Your task to perform on an android device: View the shopping cart on amazon.com. Add logitech g910 to the cart on amazon.com Image 0: 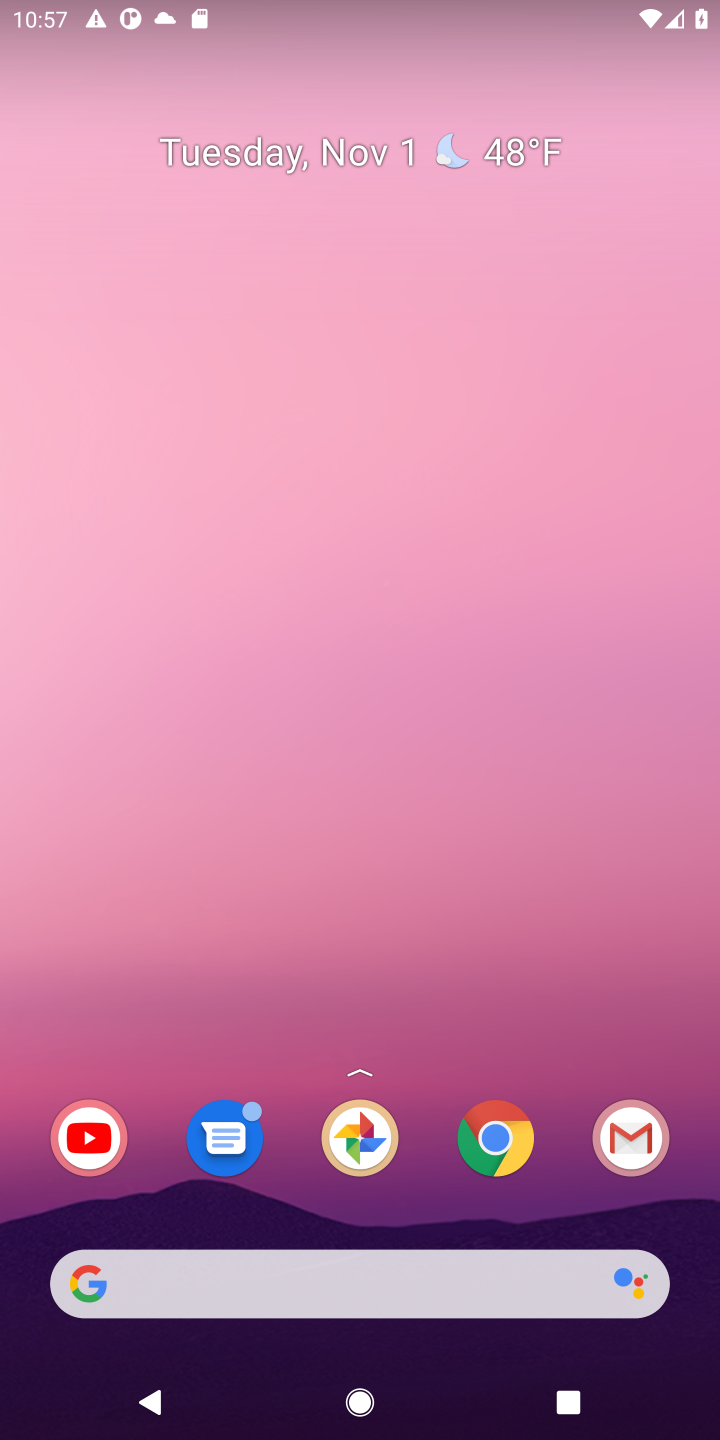
Step 0: press home button
Your task to perform on an android device: View the shopping cart on amazon.com. Add logitech g910 to the cart on amazon.com Image 1: 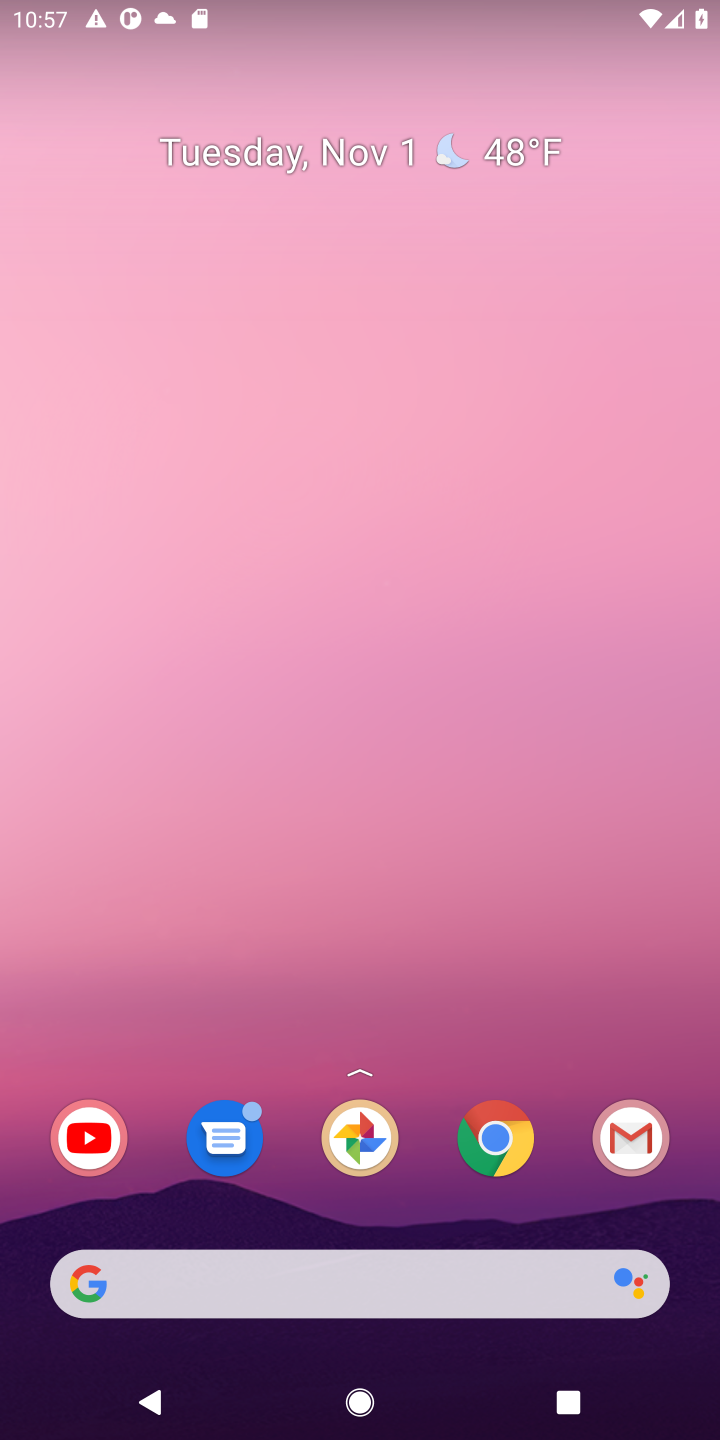
Step 1: drag from (428, 1097) to (454, 14)
Your task to perform on an android device: View the shopping cart on amazon.com. Add logitech g910 to the cart on amazon.com Image 2: 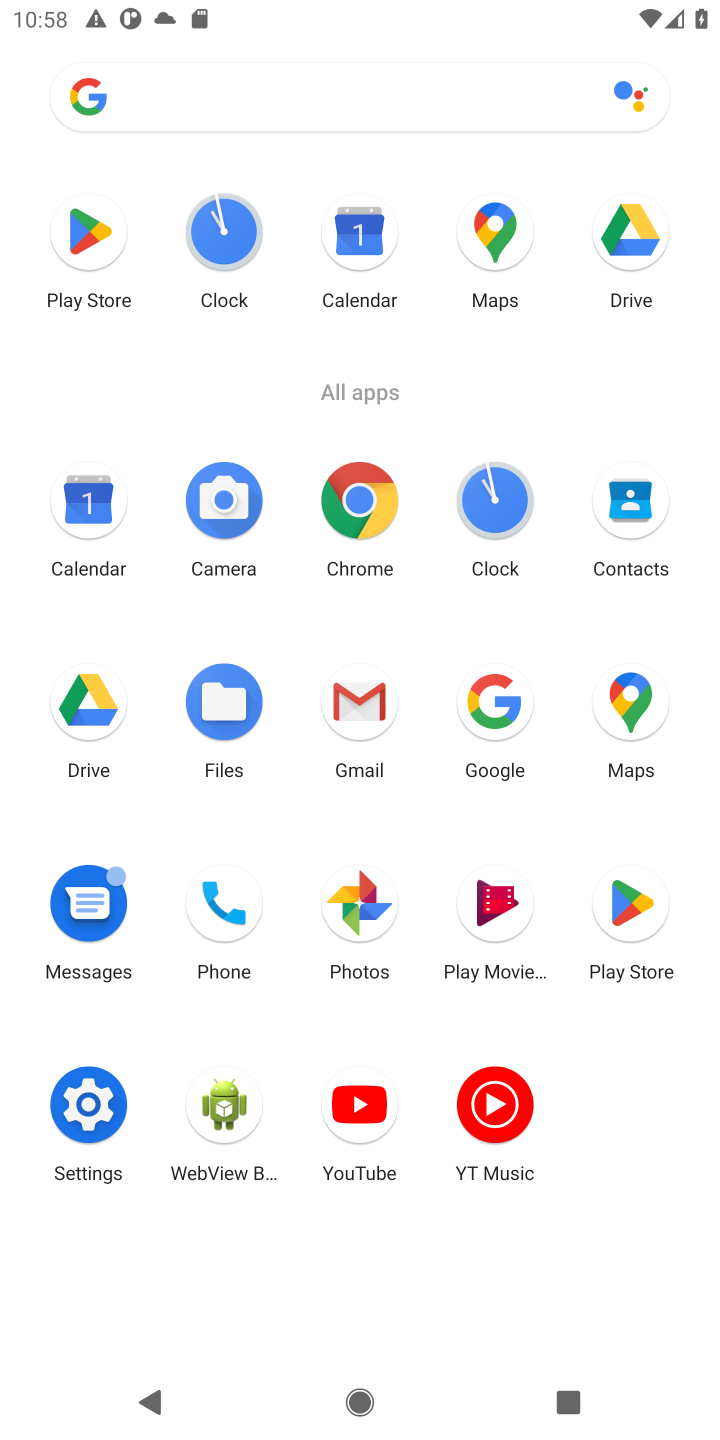
Step 2: click (361, 497)
Your task to perform on an android device: View the shopping cart on amazon.com. Add logitech g910 to the cart on amazon.com Image 3: 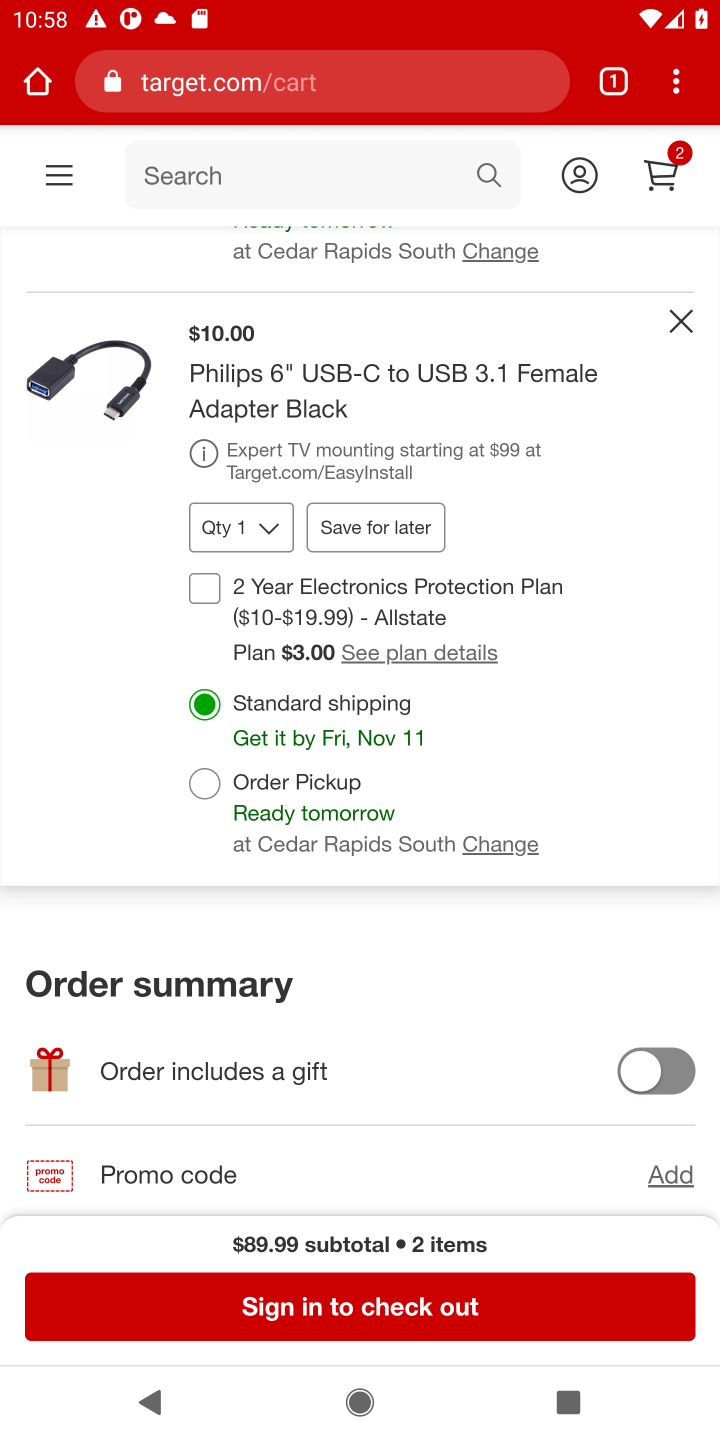
Step 3: click (209, 70)
Your task to perform on an android device: View the shopping cart on amazon.com. Add logitech g910 to the cart on amazon.com Image 4: 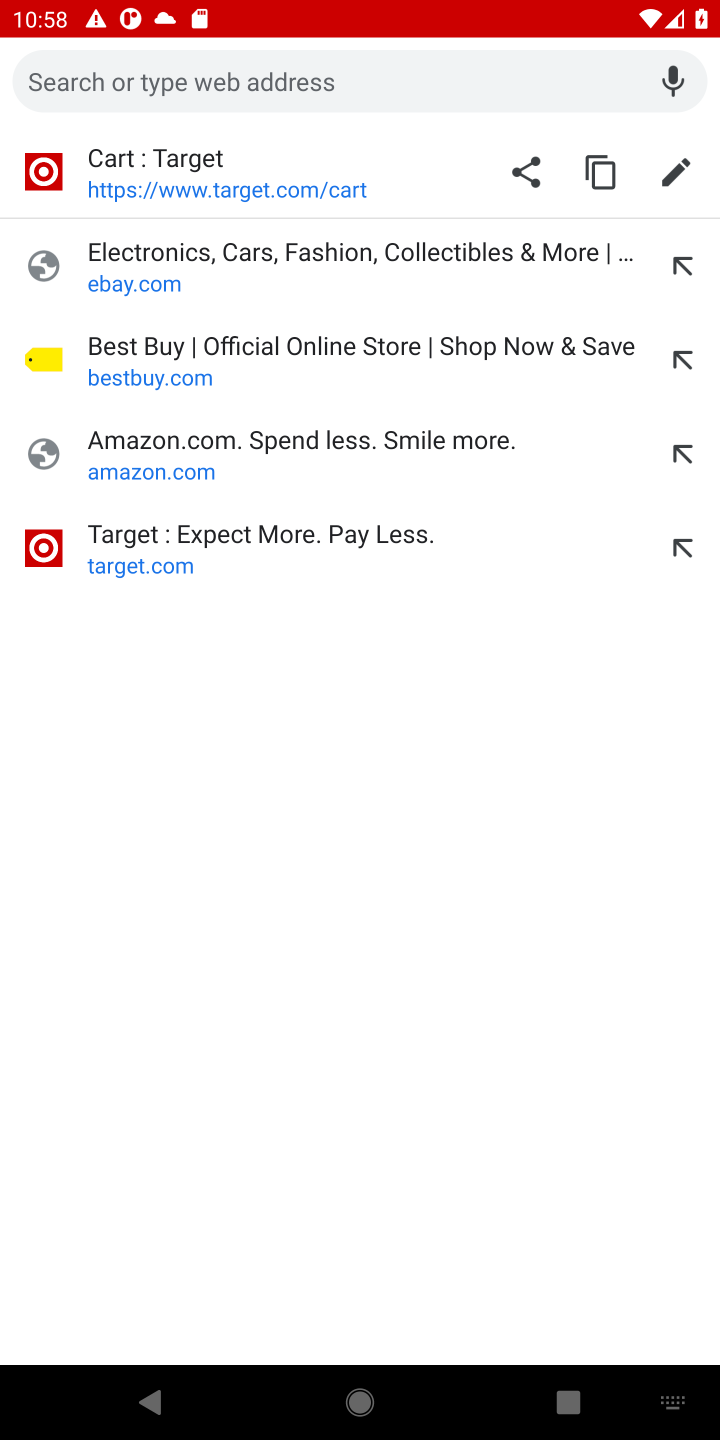
Step 4: type "amazon"
Your task to perform on an android device: View the shopping cart on amazon.com. Add logitech g910 to the cart on amazon.com Image 5: 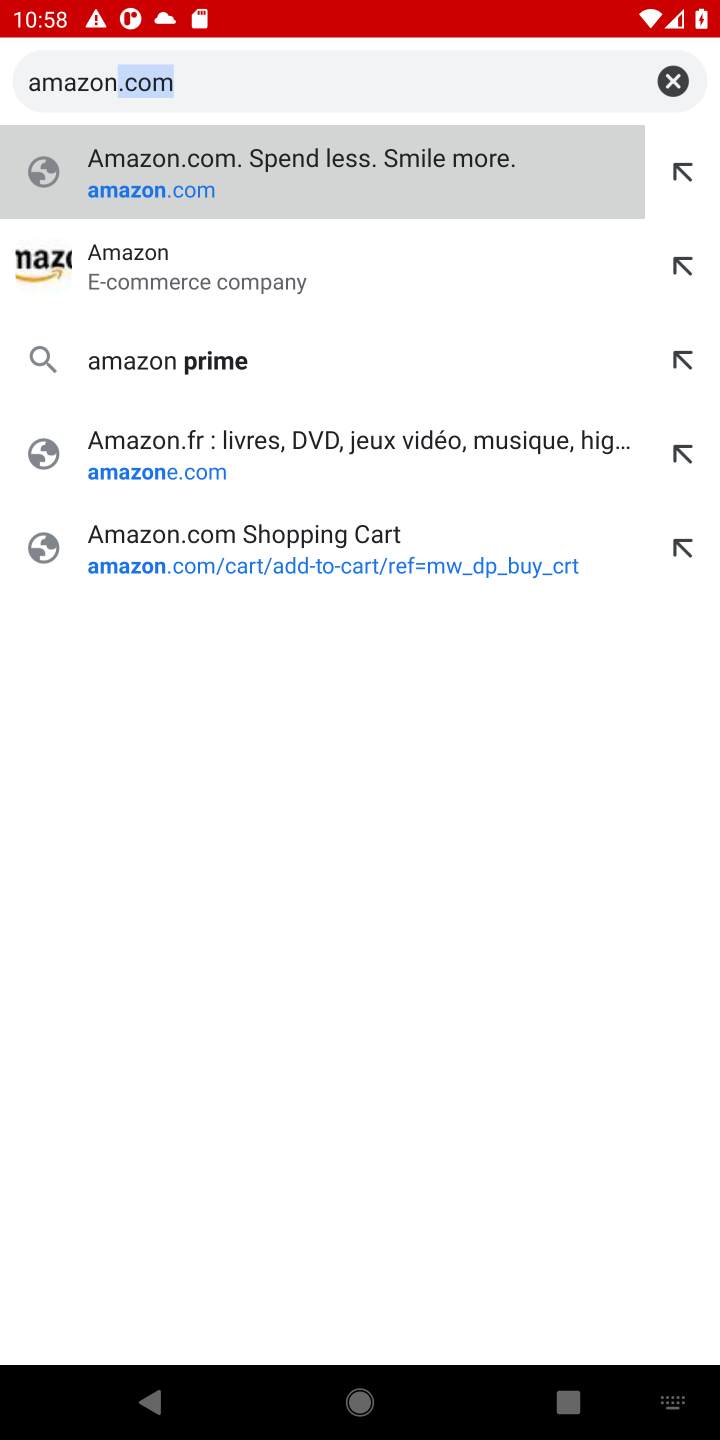
Step 5: type ""
Your task to perform on an android device: View the shopping cart on amazon.com. Add logitech g910 to the cart on amazon.com Image 6: 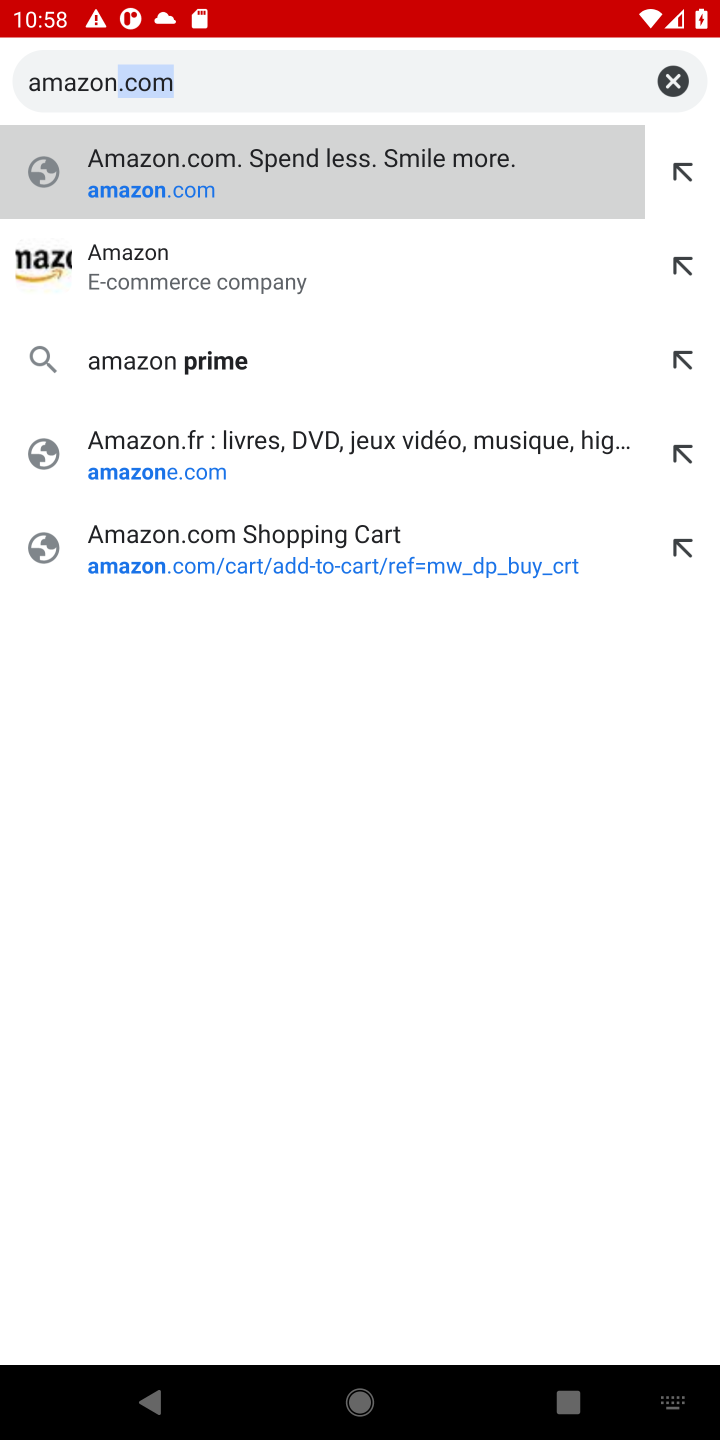
Step 6: click (253, 188)
Your task to perform on an android device: View the shopping cart on amazon.com. Add logitech g910 to the cart on amazon.com Image 7: 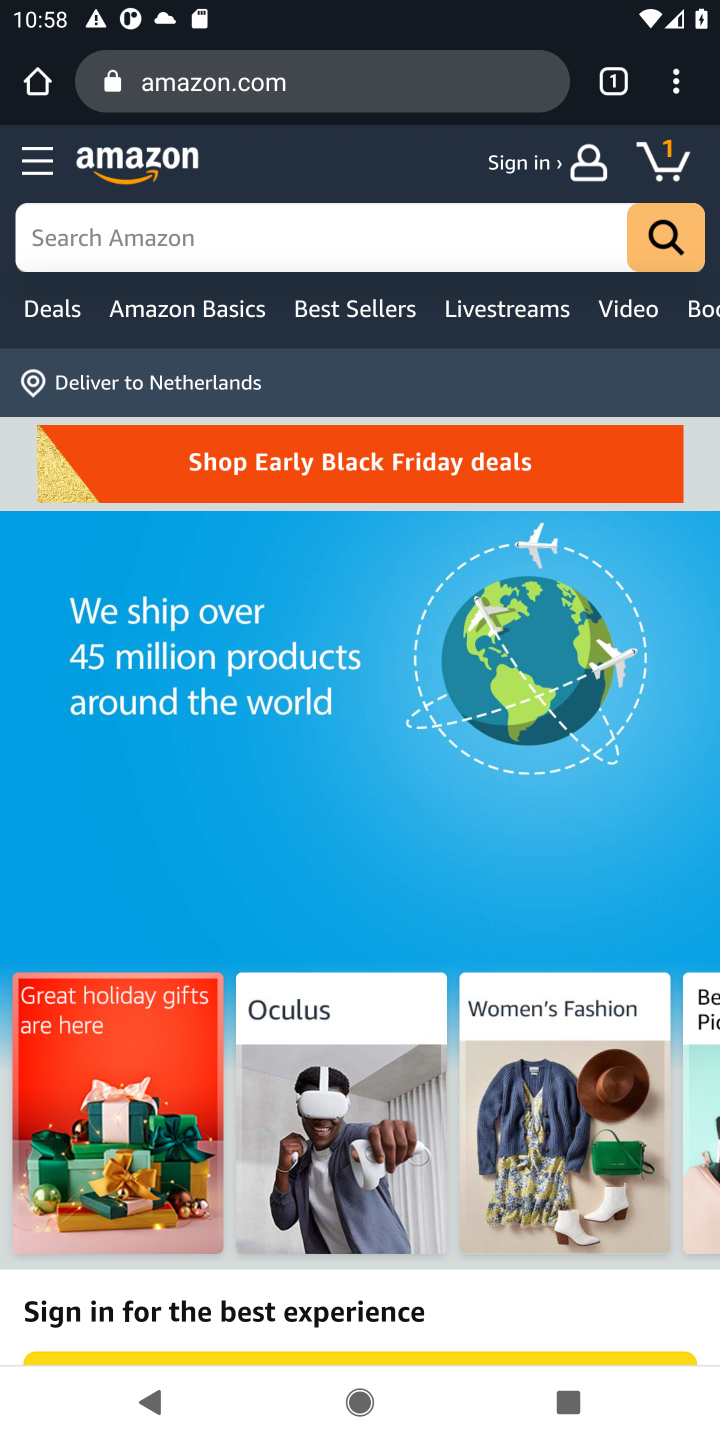
Step 7: click (133, 223)
Your task to perform on an android device: View the shopping cart on amazon.com. Add logitech g910 to the cart on amazon.com Image 8: 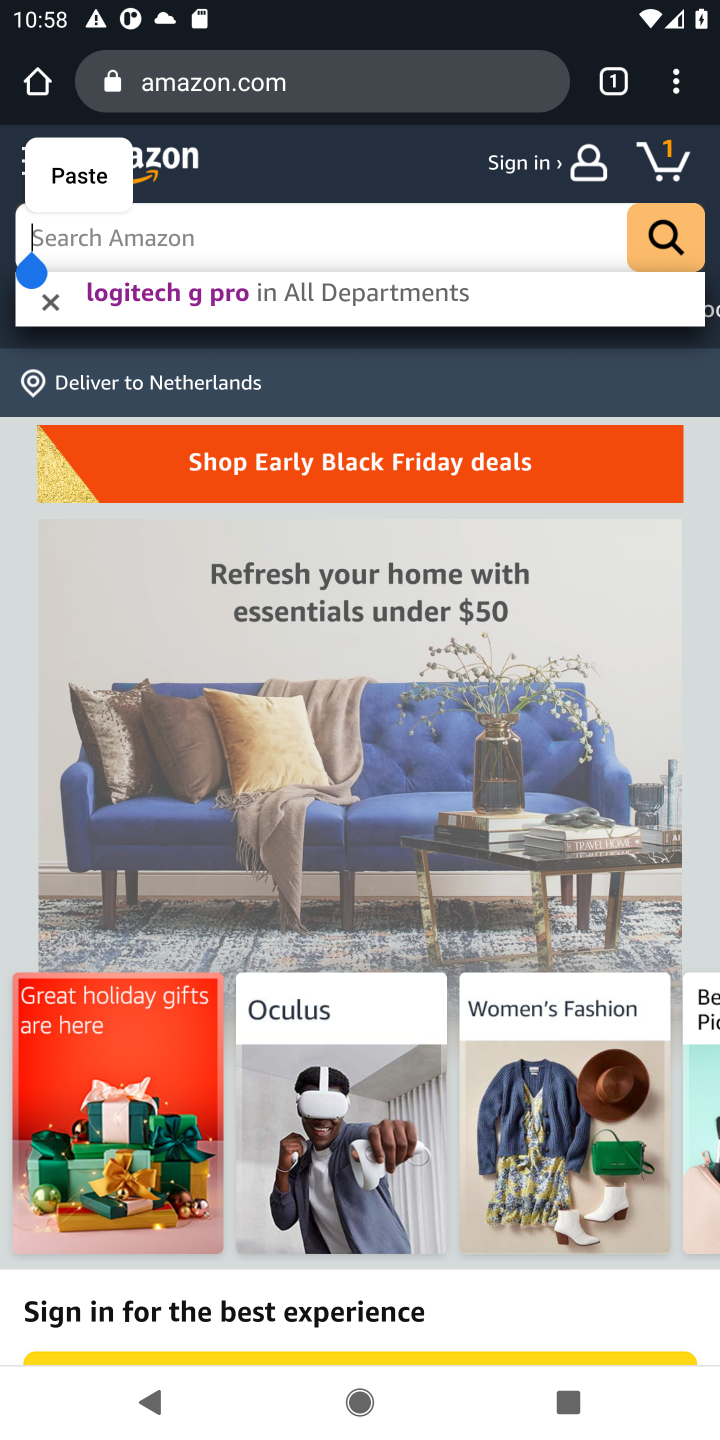
Step 8: click (206, 237)
Your task to perform on an android device: View the shopping cart on amazon.com. Add logitech g910 to the cart on amazon.com Image 9: 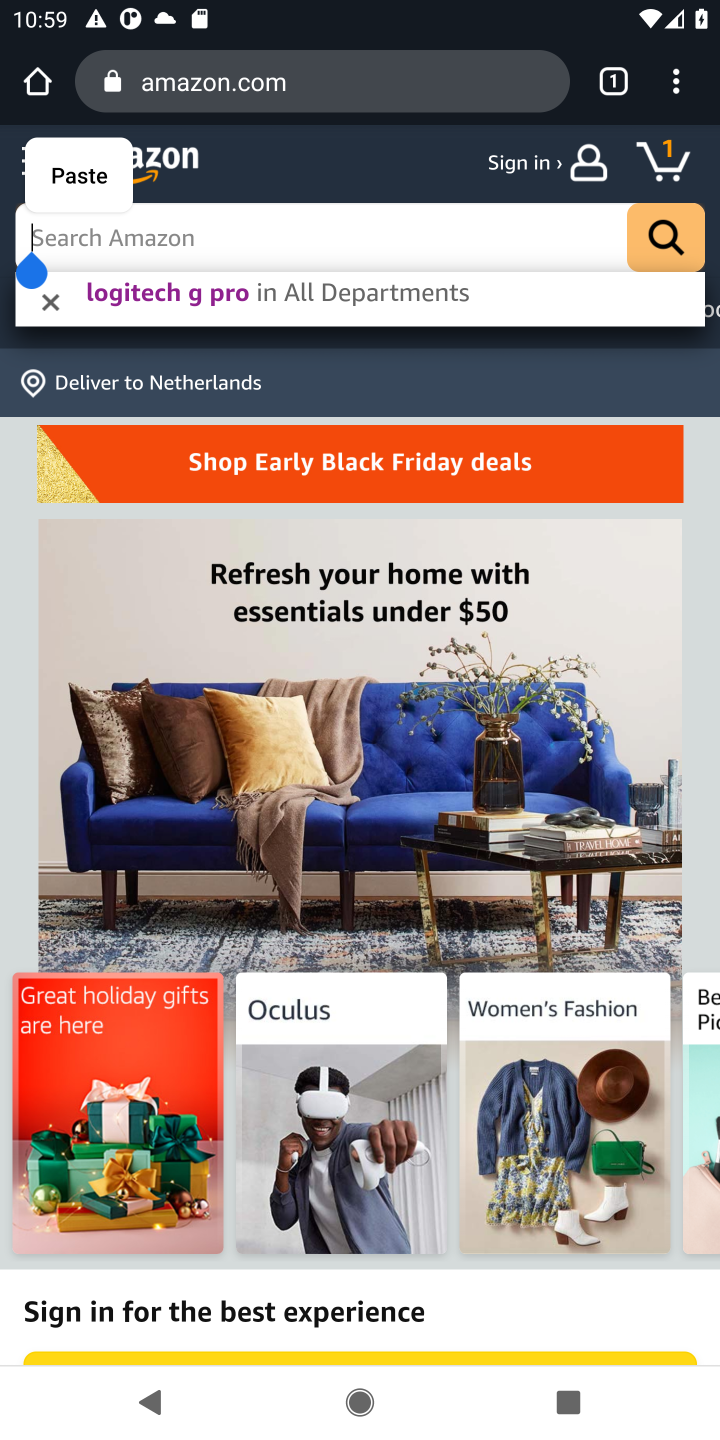
Step 9: type "logitech g910"
Your task to perform on an android device: View the shopping cart on amazon.com. Add logitech g910 to the cart on amazon.com Image 10: 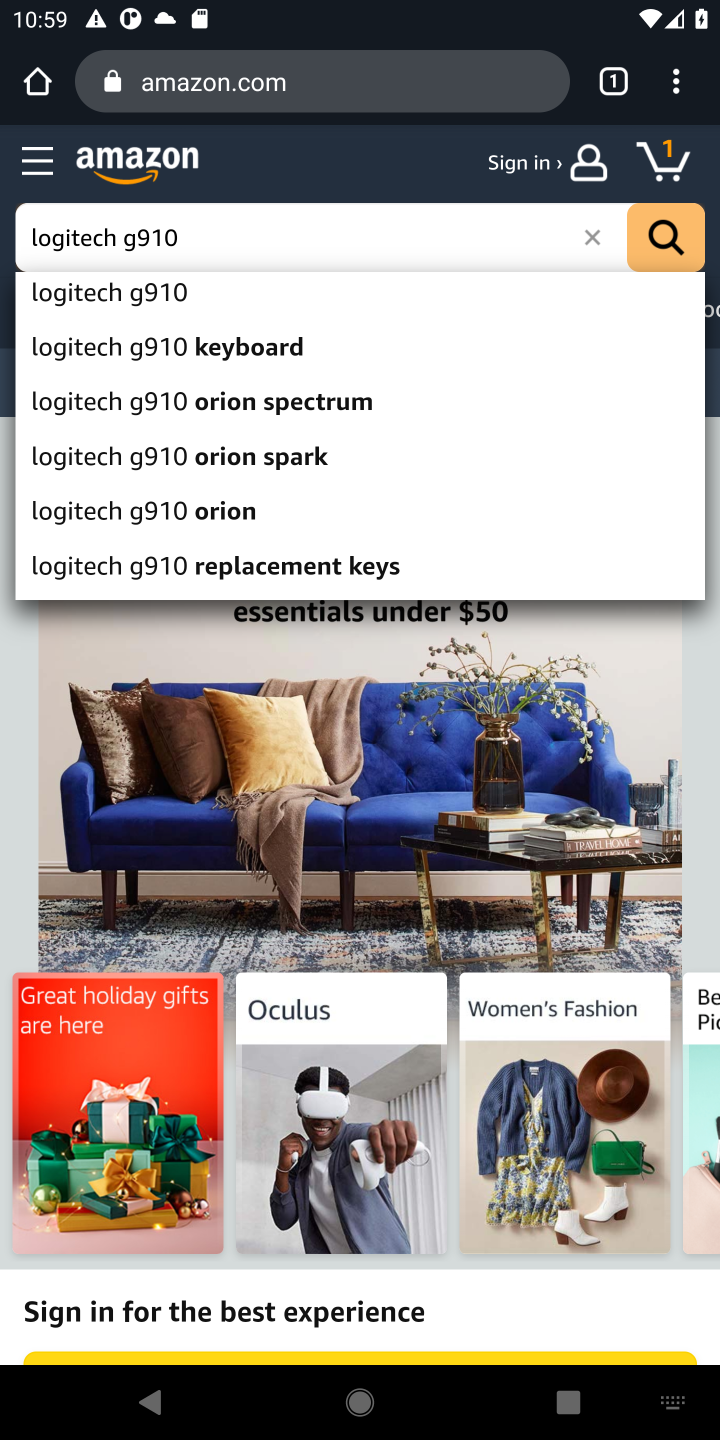
Step 10: click (190, 306)
Your task to perform on an android device: View the shopping cart on amazon.com. Add logitech g910 to the cart on amazon.com Image 11: 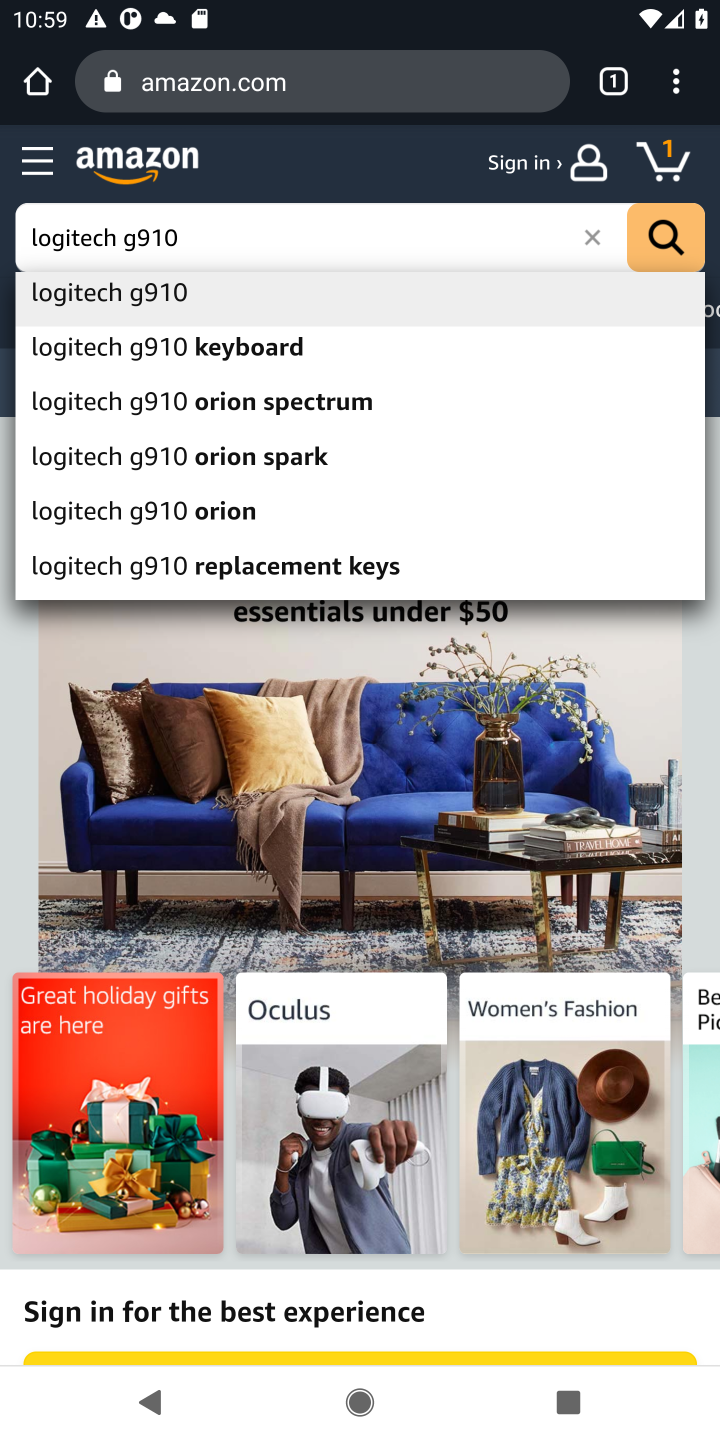
Step 11: click (214, 288)
Your task to perform on an android device: View the shopping cart on amazon.com. Add logitech g910 to the cart on amazon.com Image 12: 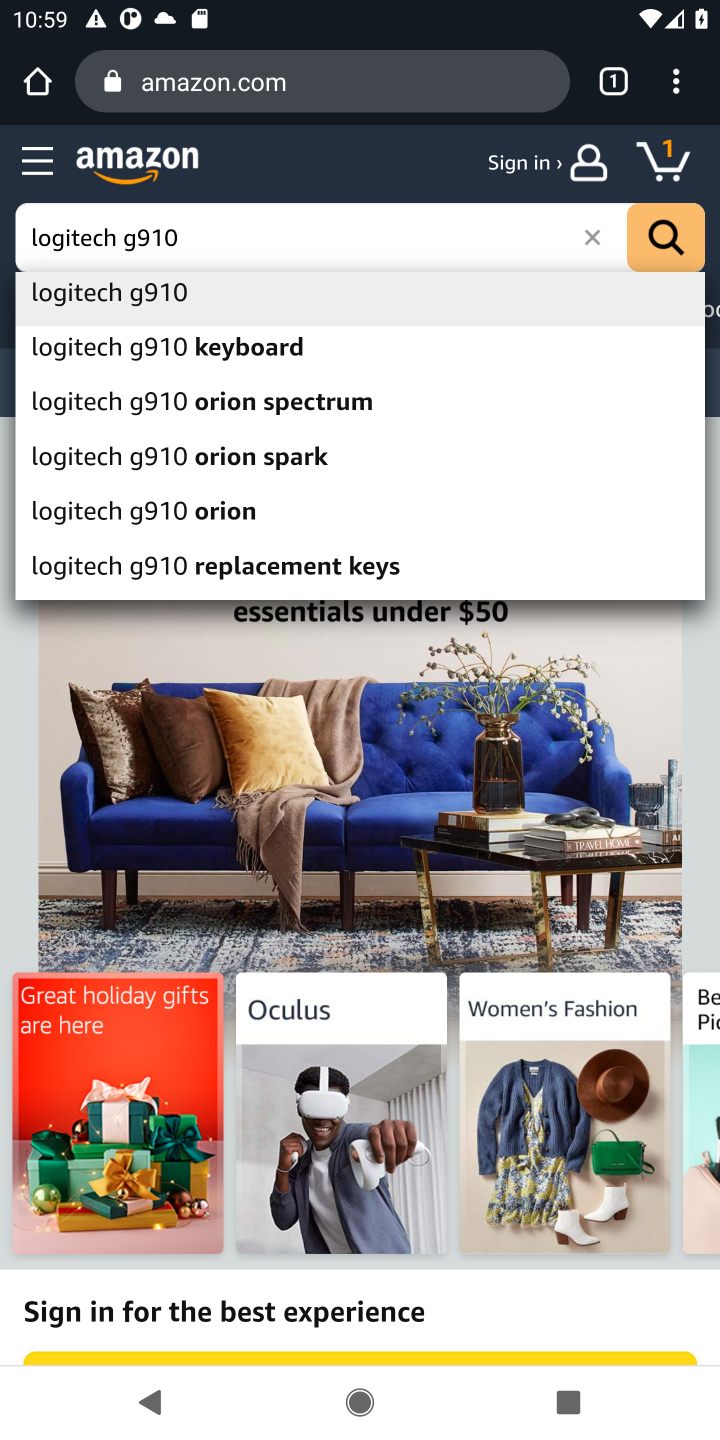
Step 12: click (182, 305)
Your task to perform on an android device: View the shopping cart on amazon.com. Add logitech g910 to the cart on amazon.com Image 13: 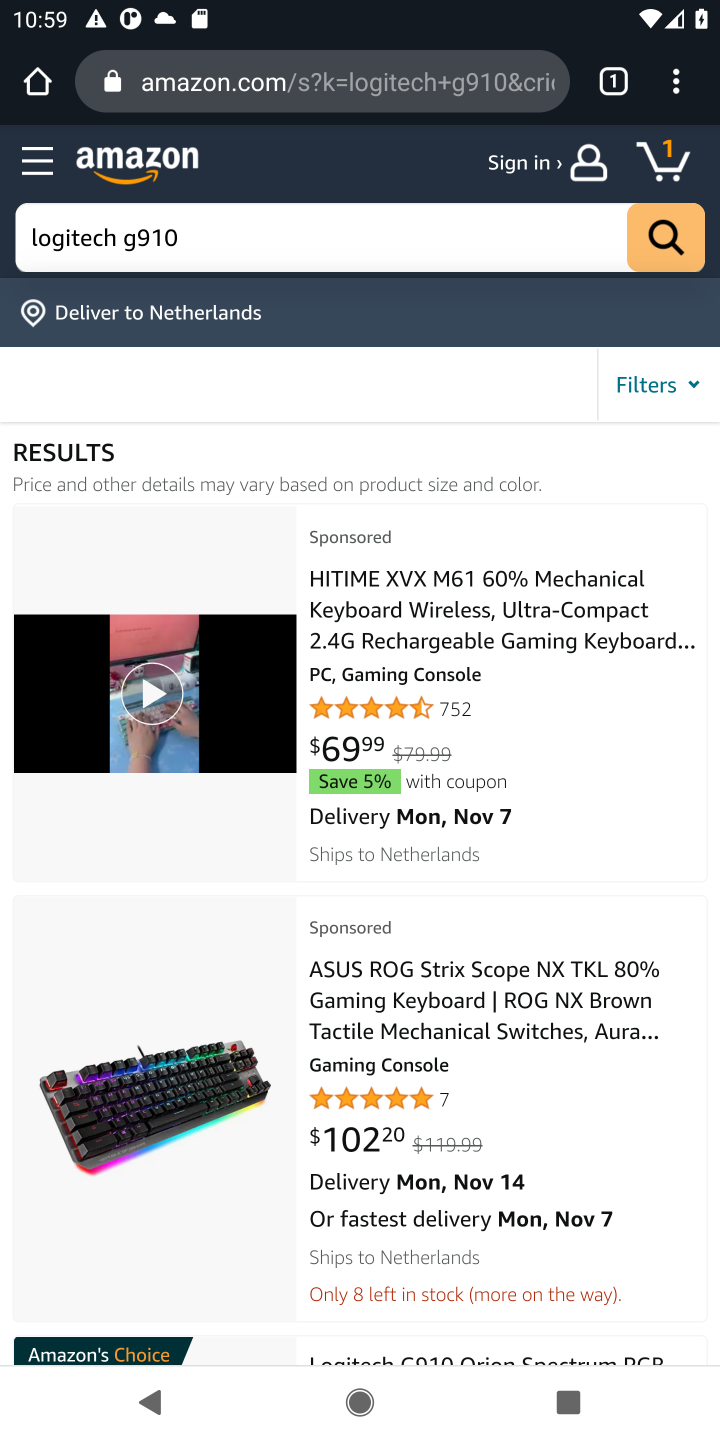
Step 13: drag from (570, 1256) to (544, 500)
Your task to perform on an android device: View the shopping cart on amazon.com. Add logitech g910 to the cart on amazon.com Image 14: 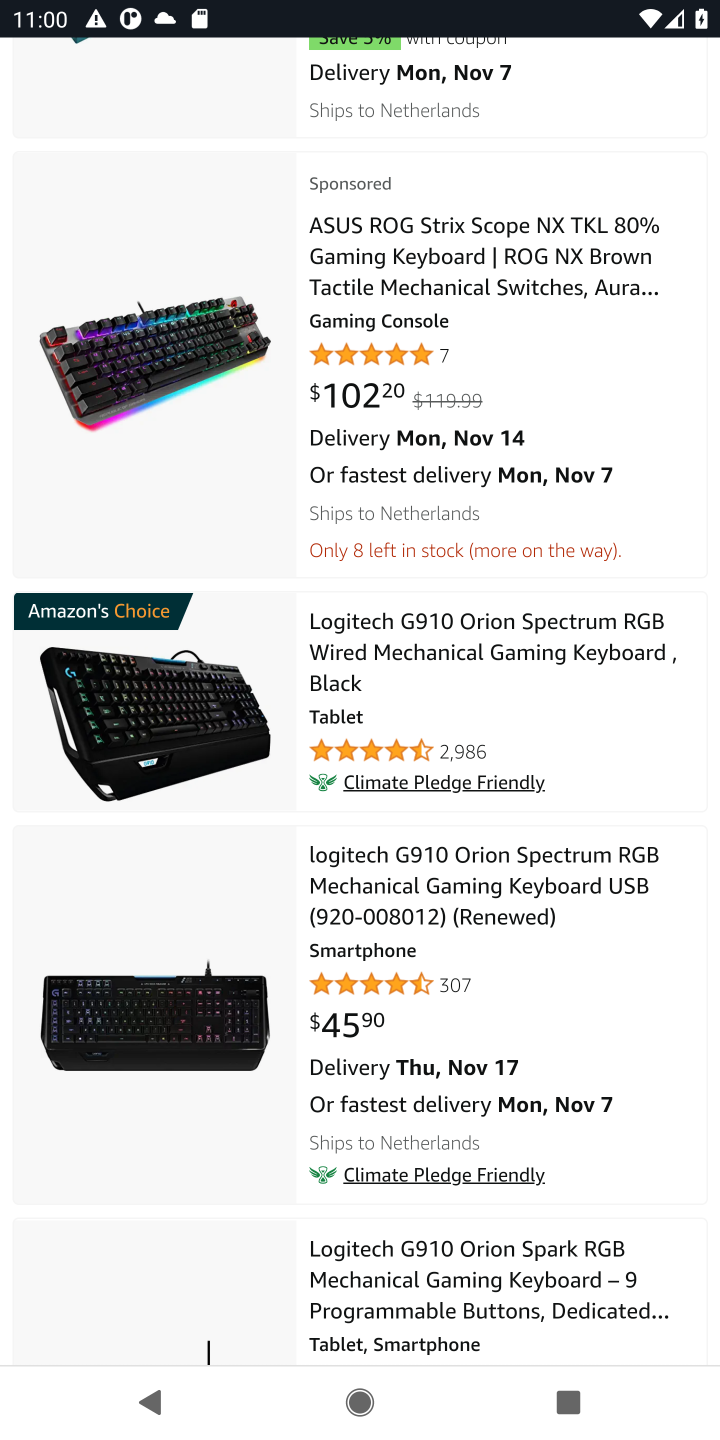
Step 14: click (403, 634)
Your task to perform on an android device: View the shopping cart on amazon.com. Add logitech g910 to the cart on amazon.com Image 15: 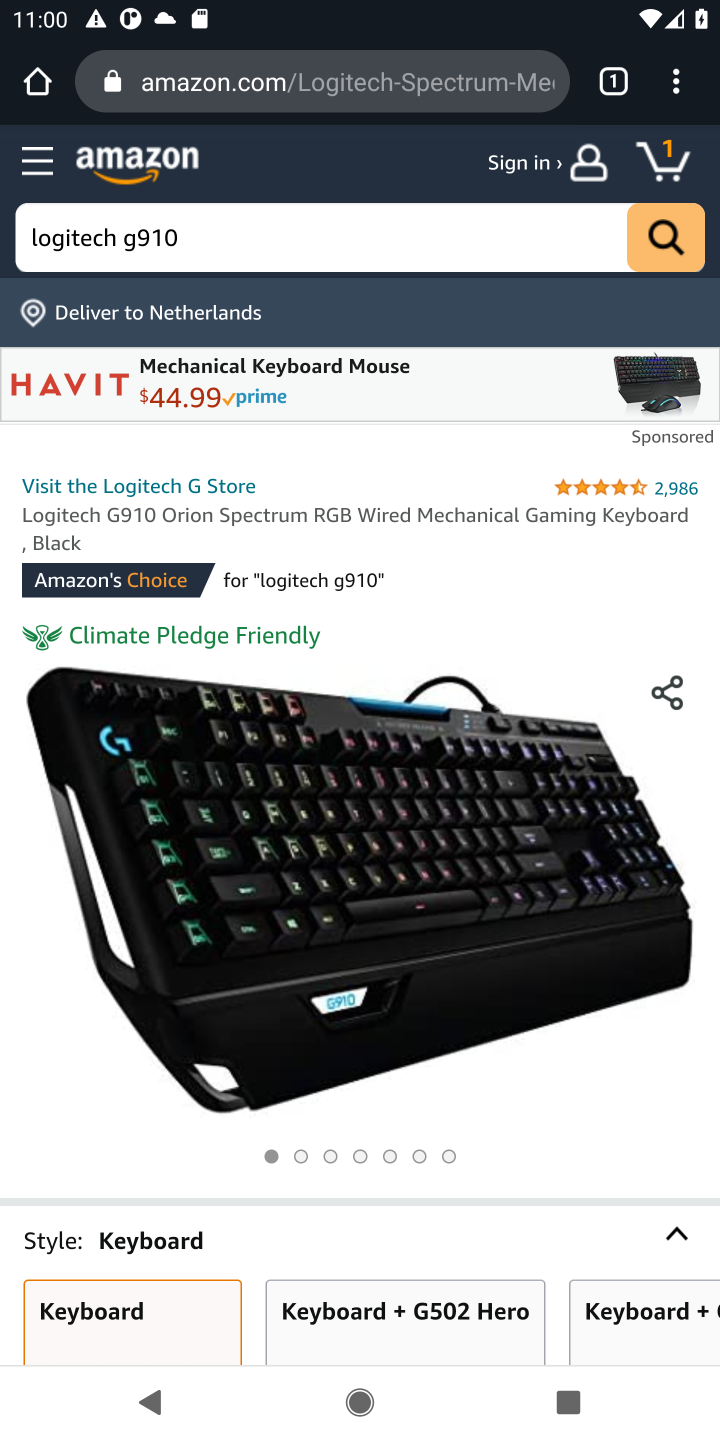
Step 15: drag from (414, 1169) to (352, 439)
Your task to perform on an android device: View the shopping cart on amazon.com. Add logitech g910 to the cart on amazon.com Image 16: 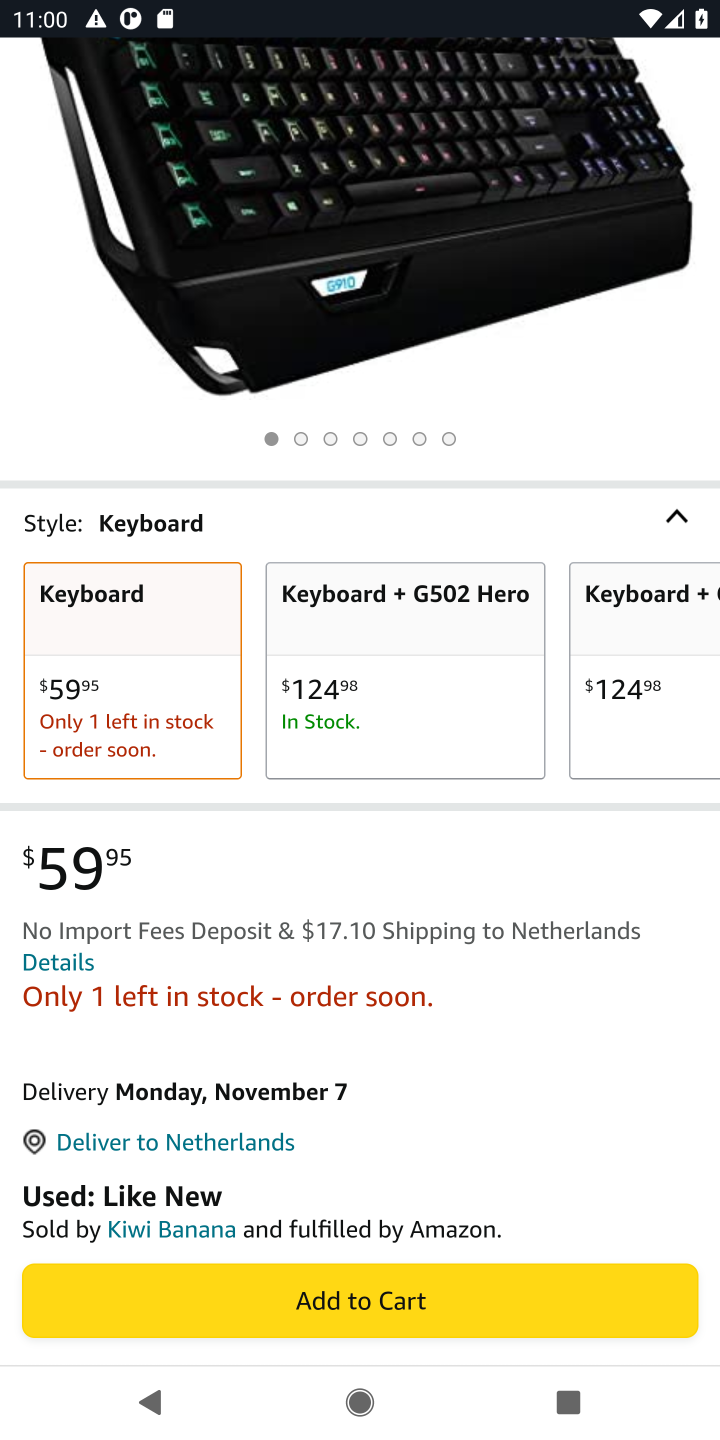
Step 16: drag from (463, 1255) to (465, 746)
Your task to perform on an android device: View the shopping cart on amazon.com. Add logitech g910 to the cart on amazon.com Image 17: 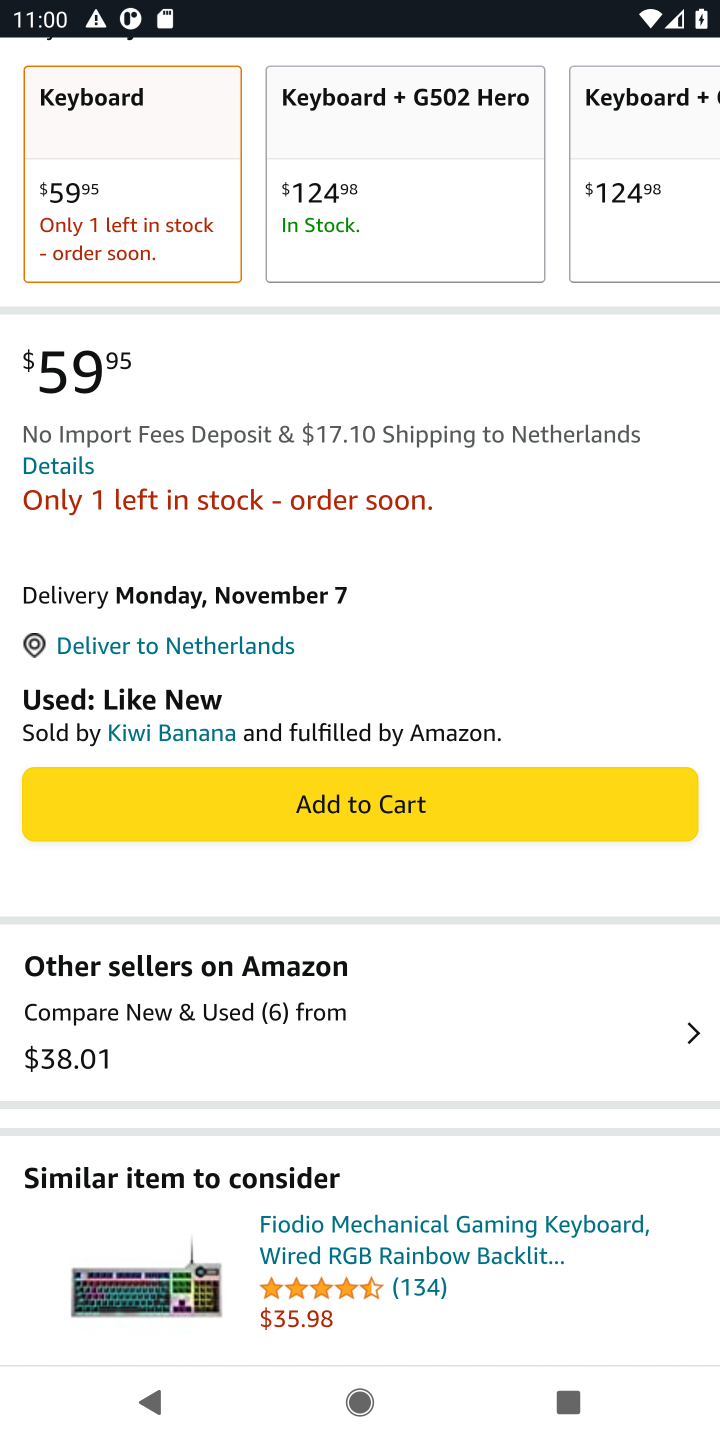
Step 17: click (381, 813)
Your task to perform on an android device: View the shopping cart on amazon.com. Add logitech g910 to the cart on amazon.com Image 18: 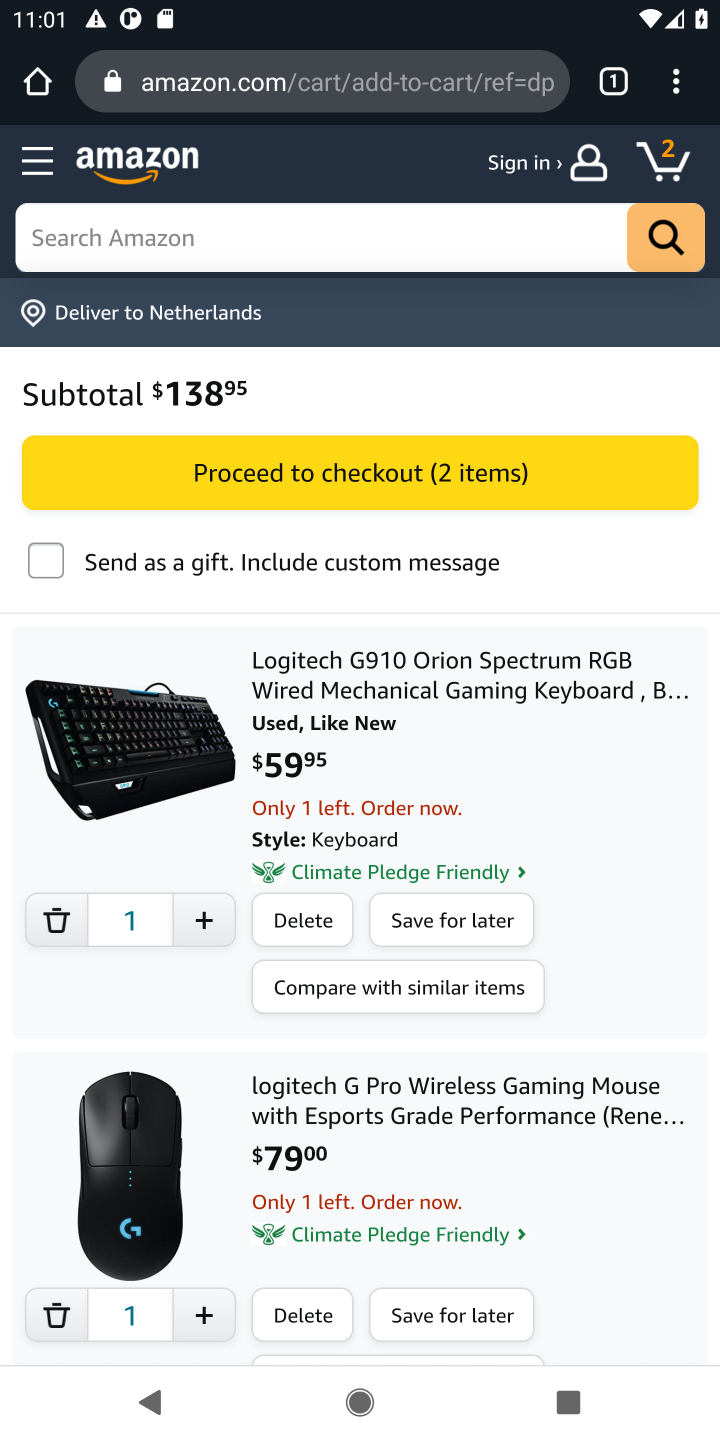
Step 18: click (666, 147)
Your task to perform on an android device: View the shopping cart on amazon.com. Add logitech g910 to the cart on amazon.com Image 19: 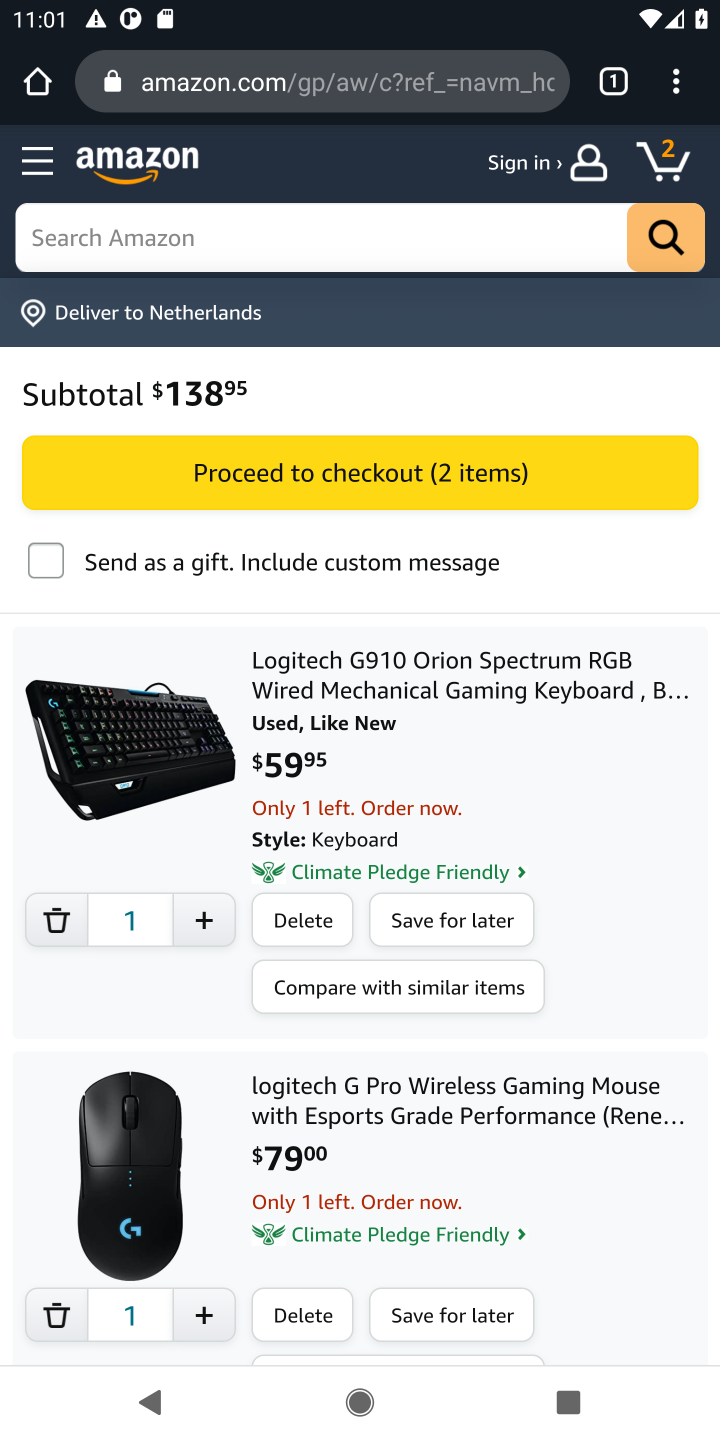
Step 19: task complete